Your task to perform on an android device: toggle pop-ups in chrome Image 0: 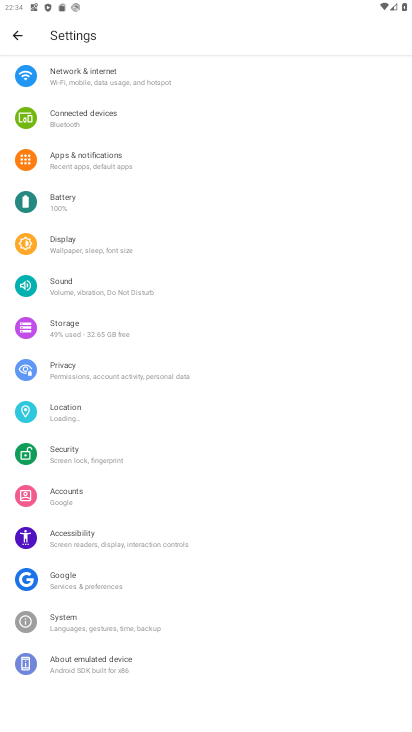
Step 0: press home button
Your task to perform on an android device: toggle pop-ups in chrome Image 1: 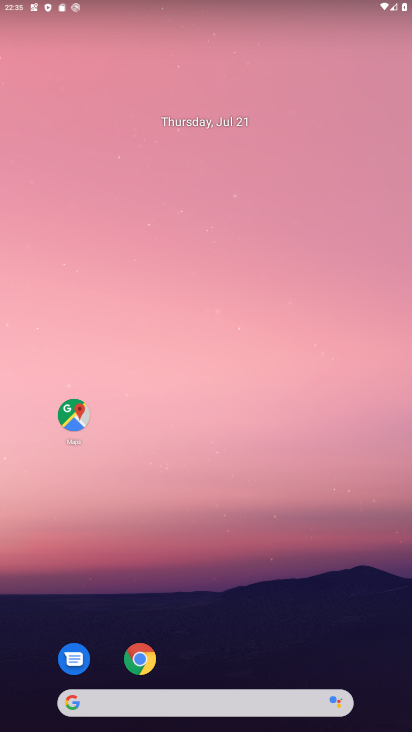
Step 1: drag from (343, 643) to (246, 41)
Your task to perform on an android device: toggle pop-ups in chrome Image 2: 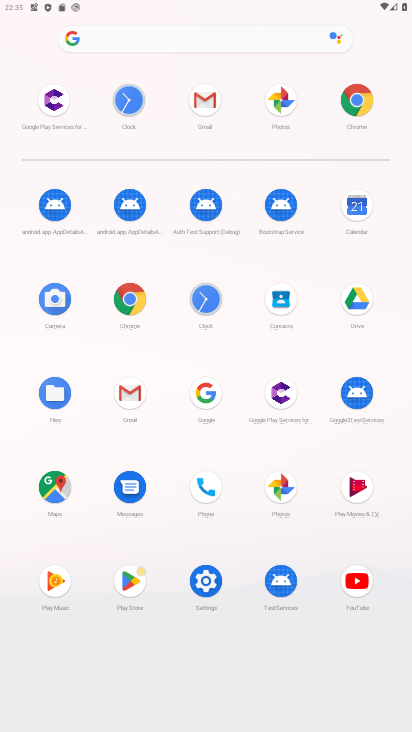
Step 2: click (360, 100)
Your task to perform on an android device: toggle pop-ups in chrome Image 3: 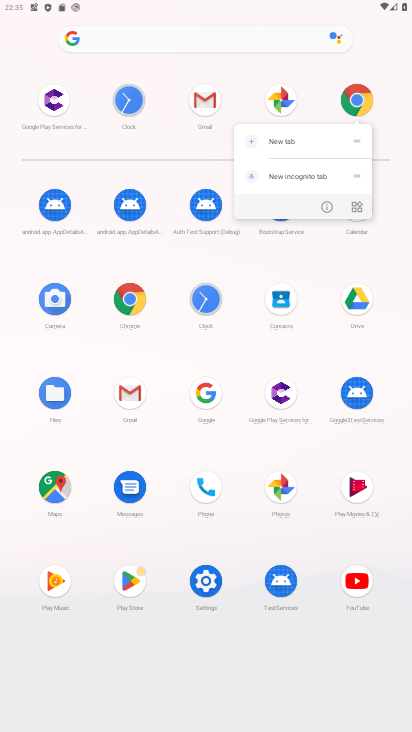
Step 3: click (354, 97)
Your task to perform on an android device: toggle pop-ups in chrome Image 4: 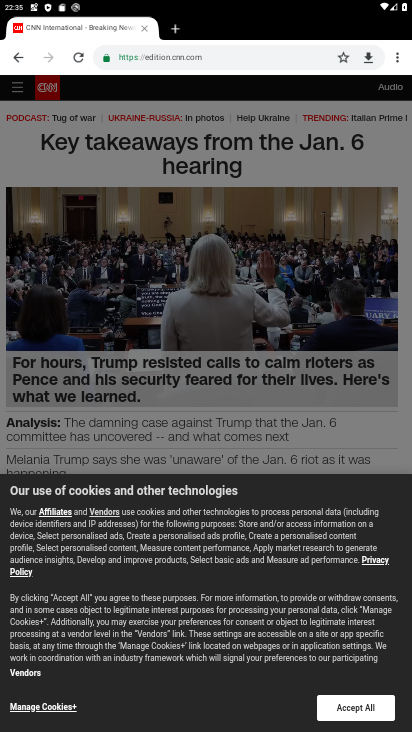
Step 4: click (403, 56)
Your task to perform on an android device: toggle pop-ups in chrome Image 5: 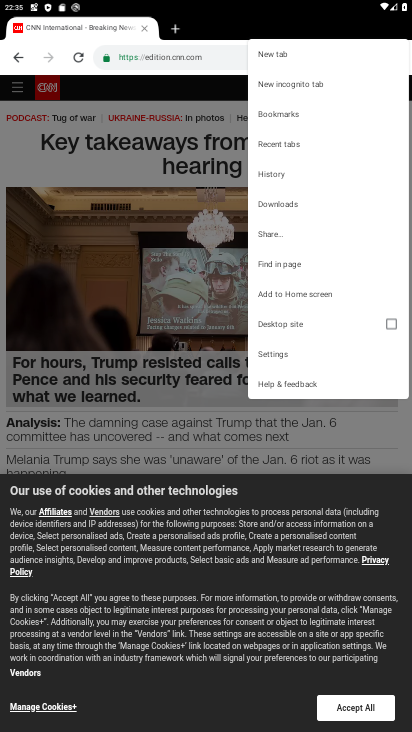
Step 5: click (303, 349)
Your task to perform on an android device: toggle pop-ups in chrome Image 6: 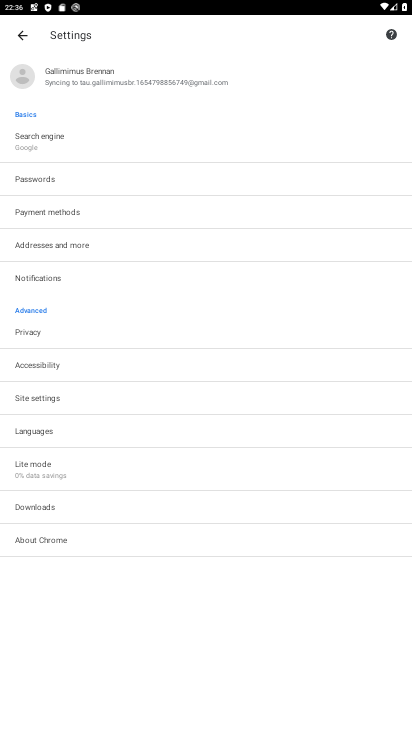
Step 6: click (45, 400)
Your task to perform on an android device: toggle pop-ups in chrome Image 7: 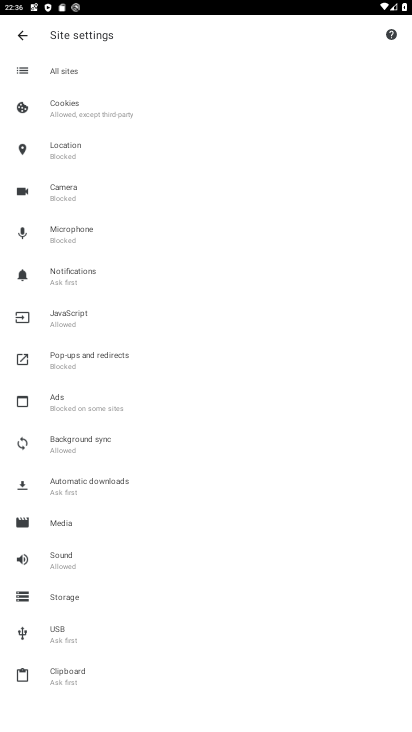
Step 7: click (113, 357)
Your task to perform on an android device: toggle pop-ups in chrome Image 8: 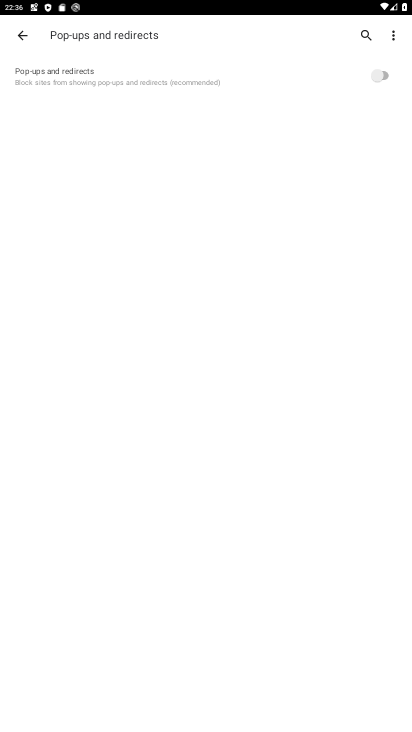
Step 8: click (370, 76)
Your task to perform on an android device: toggle pop-ups in chrome Image 9: 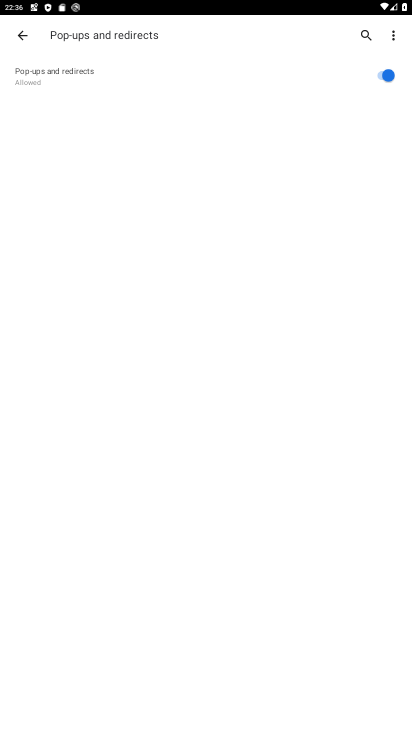
Step 9: task complete